Your task to perform on an android device: turn off smart reply in the gmail app Image 0: 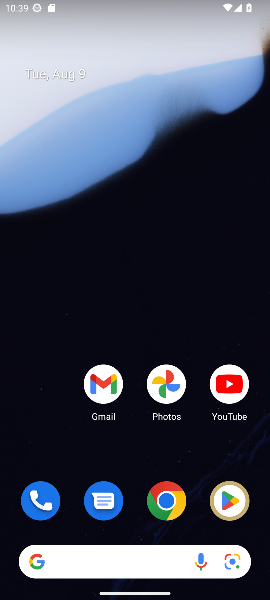
Step 0: drag from (123, 445) to (154, 168)
Your task to perform on an android device: turn off smart reply in the gmail app Image 1: 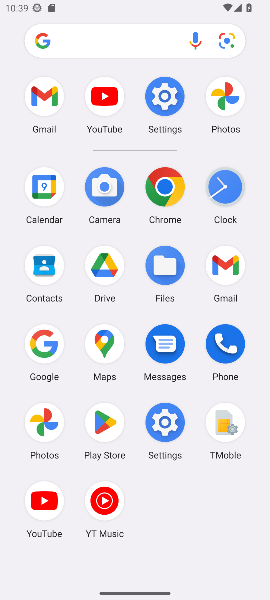
Step 1: click (41, 100)
Your task to perform on an android device: turn off smart reply in the gmail app Image 2: 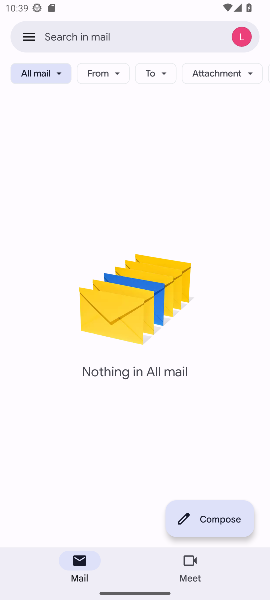
Step 2: press home button
Your task to perform on an android device: turn off smart reply in the gmail app Image 3: 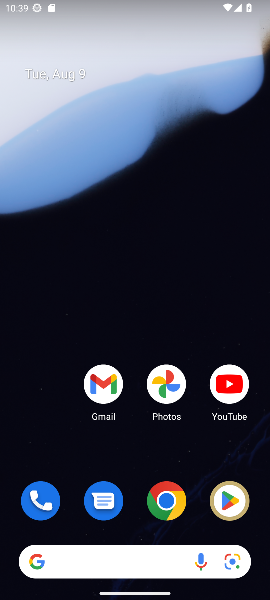
Step 3: click (100, 380)
Your task to perform on an android device: turn off smart reply in the gmail app Image 4: 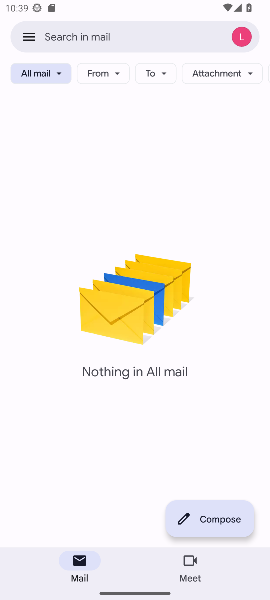
Step 4: click (27, 31)
Your task to perform on an android device: turn off smart reply in the gmail app Image 5: 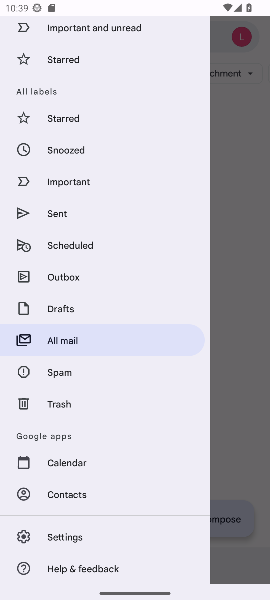
Step 5: click (55, 538)
Your task to perform on an android device: turn off smart reply in the gmail app Image 6: 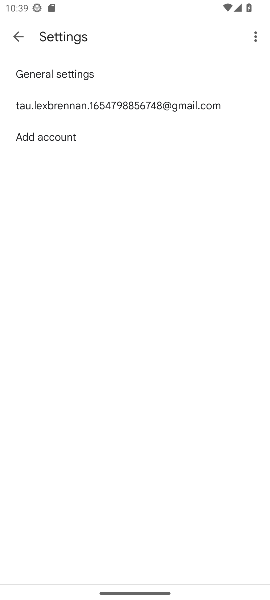
Step 6: click (99, 107)
Your task to perform on an android device: turn off smart reply in the gmail app Image 7: 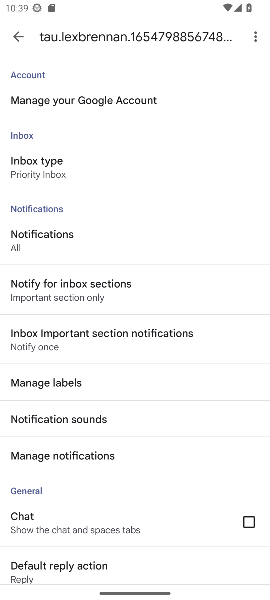
Step 7: drag from (111, 478) to (111, 370)
Your task to perform on an android device: turn off smart reply in the gmail app Image 8: 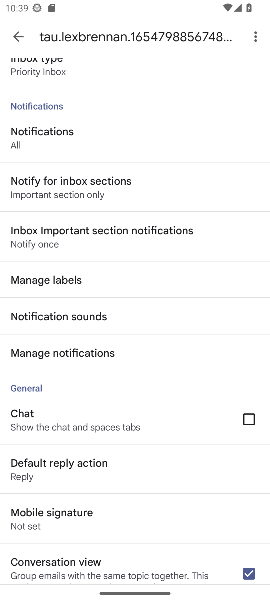
Step 8: drag from (166, 524) to (164, 321)
Your task to perform on an android device: turn off smart reply in the gmail app Image 9: 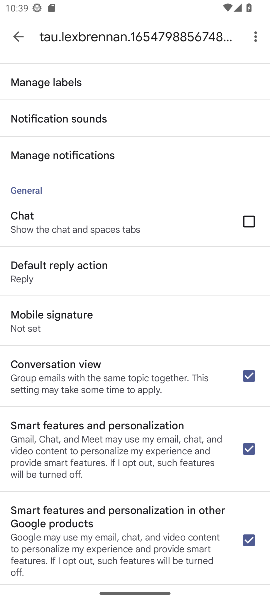
Step 9: drag from (162, 450) to (165, 209)
Your task to perform on an android device: turn off smart reply in the gmail app Image 10: 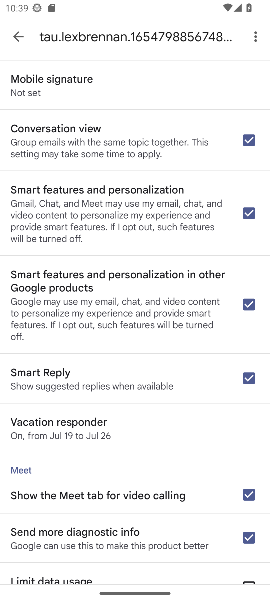
Step 10: click (247, 381)
Your task to perform on an android device: turn off smart reply in the gmail app Image 11: 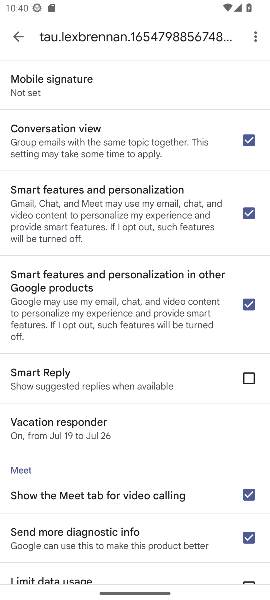
Step 11: task complete